Your task to perform on an android device: Go to settings Image 0: 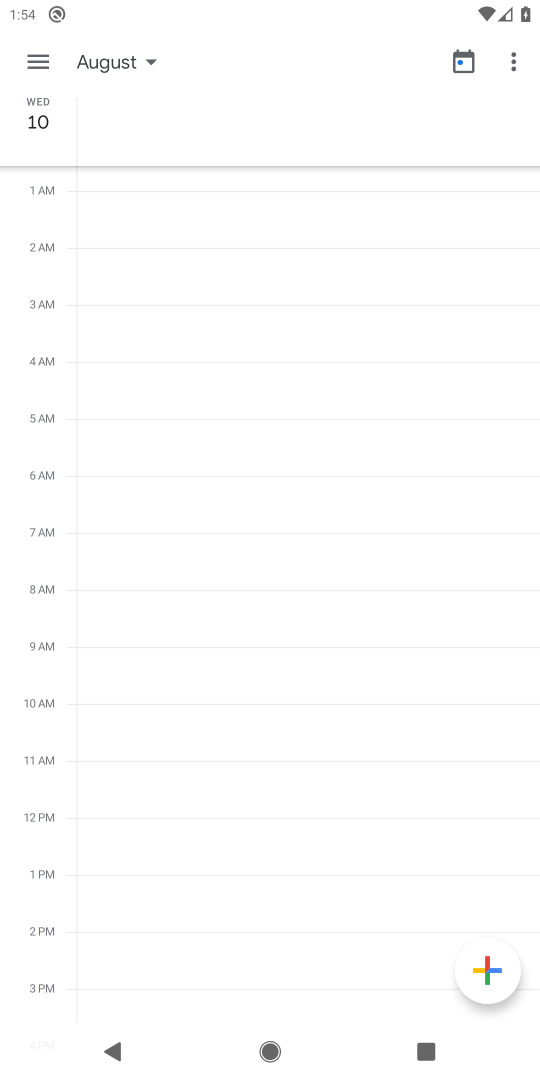
Step 0: press home button
Your task to perform on an android device: Go to settings Image 1: 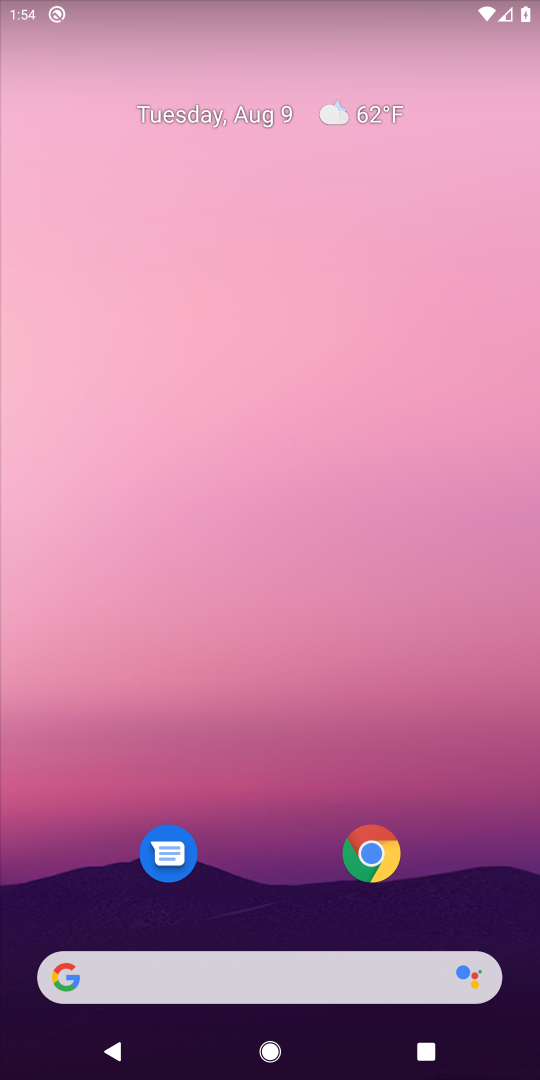
Step 1: drag from (285, 839) to (265, 112)
Your task to perform on an android device: Go to settings Image 2: 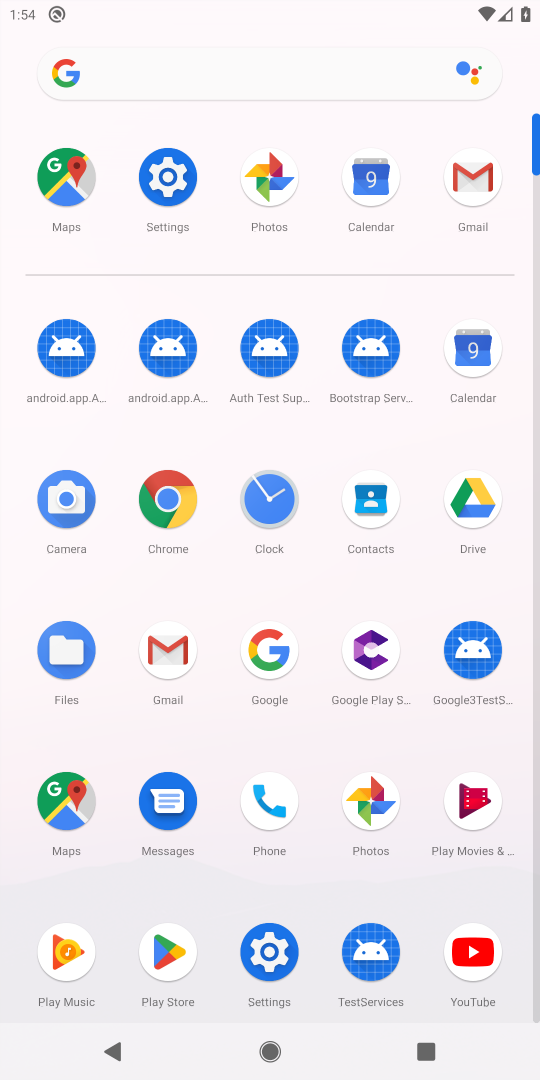
Step 2: click (156, 177)
Your task to perform on an android device: Go to settings Image 3: 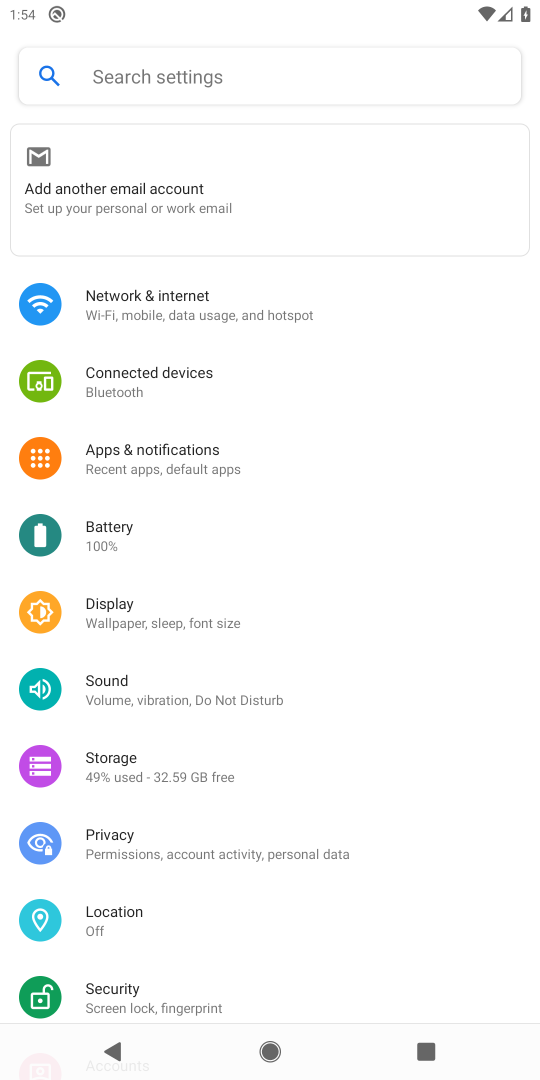
Step 3: task complete